Your task to perform on an android device: add a contact Image 0: 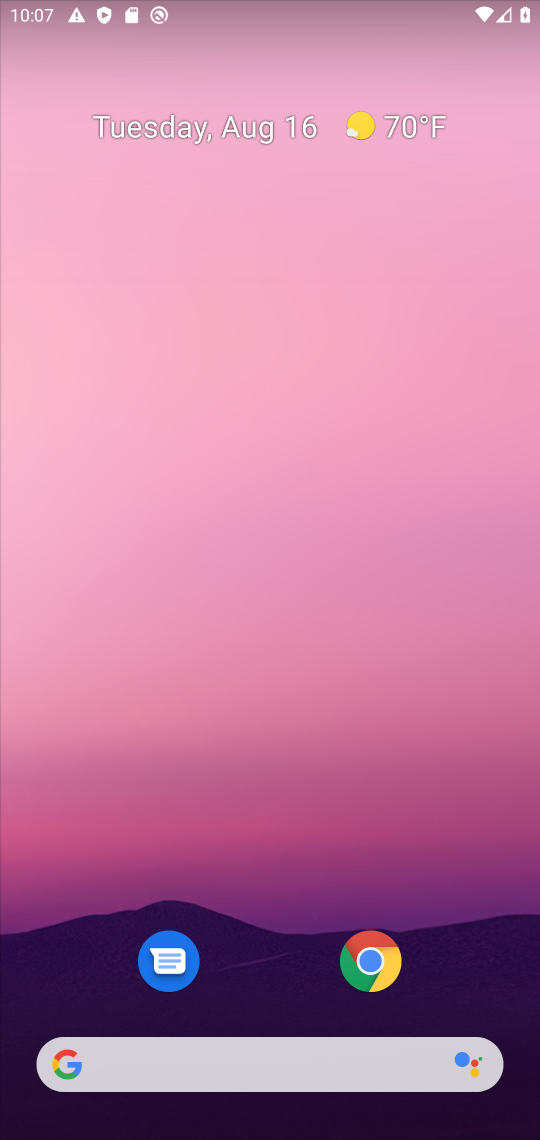
Step 0: press home button
Your task to perform on an android device: add a contact Image 1: 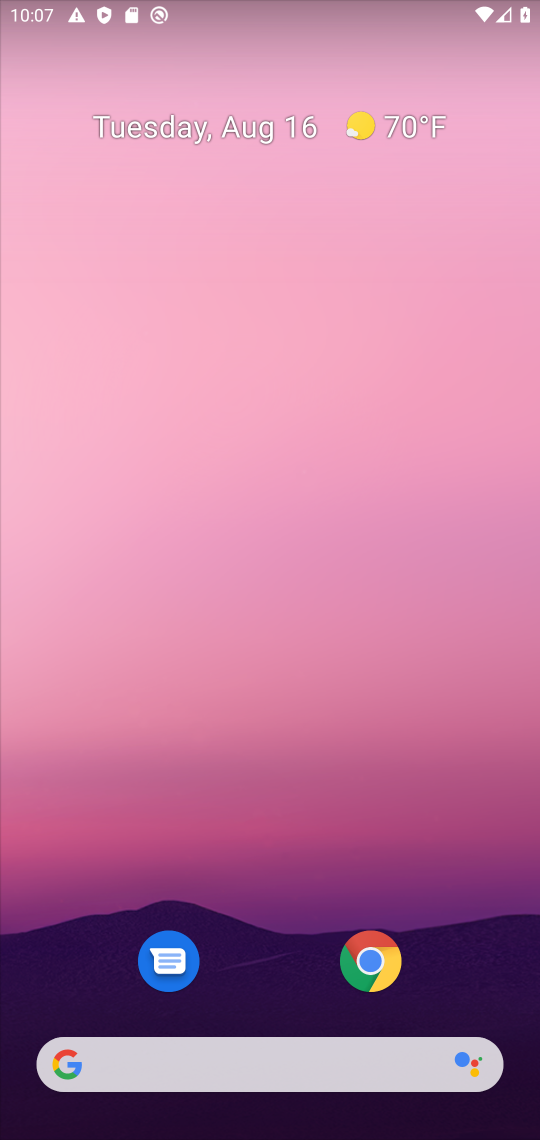
Step 1: drag from (341, 476) to (325, 3)
Your task to perform on an android device: add a contact Image 2: 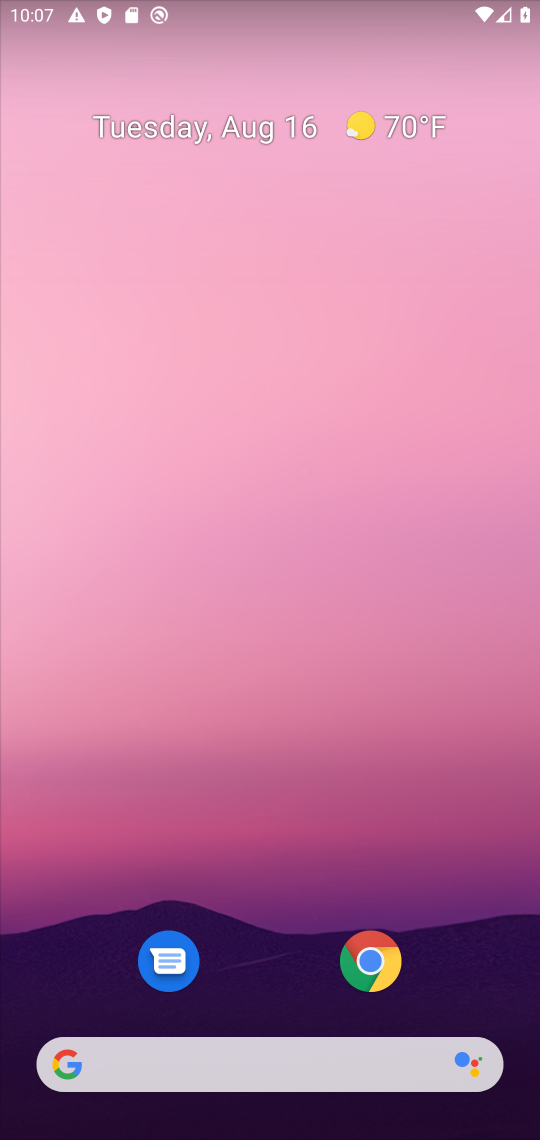
Step 2: drag from (263, 870) to (243, 500)
Your task to perform on an android device: add a contact Image 3: 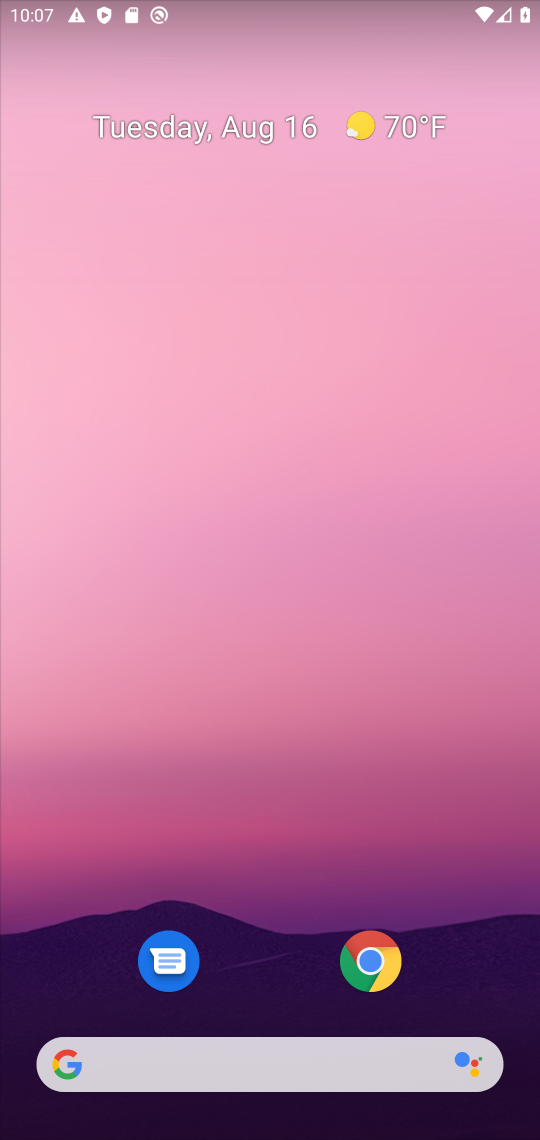
Step 3: drag from (293, 813) to (334, 167)
Your task to perform on an android device: add a contact Image 4: 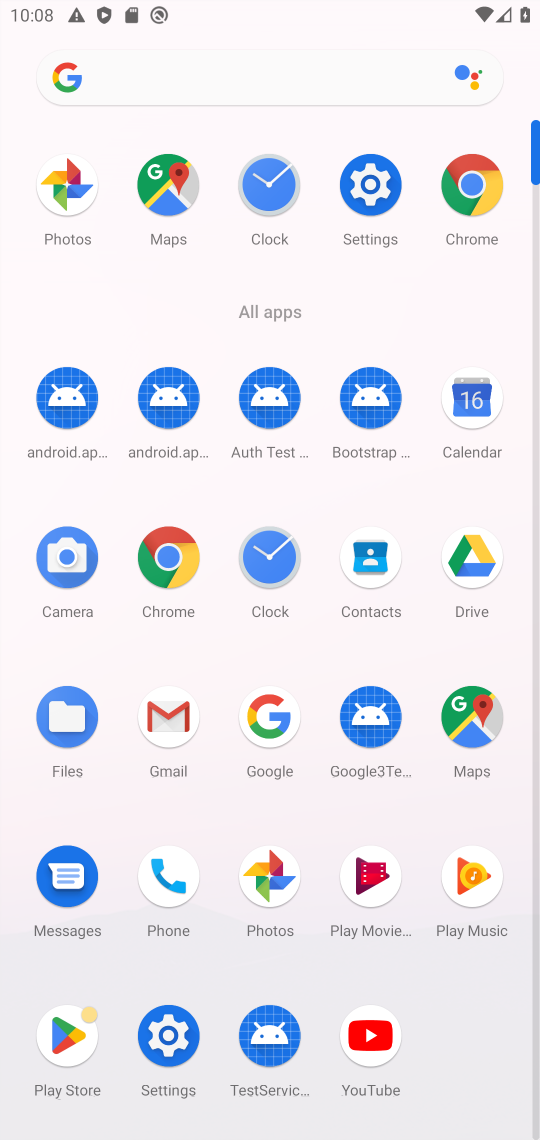
Step 4: click (369, 555)
Your task to perform on an android device: add a contact Image 5: 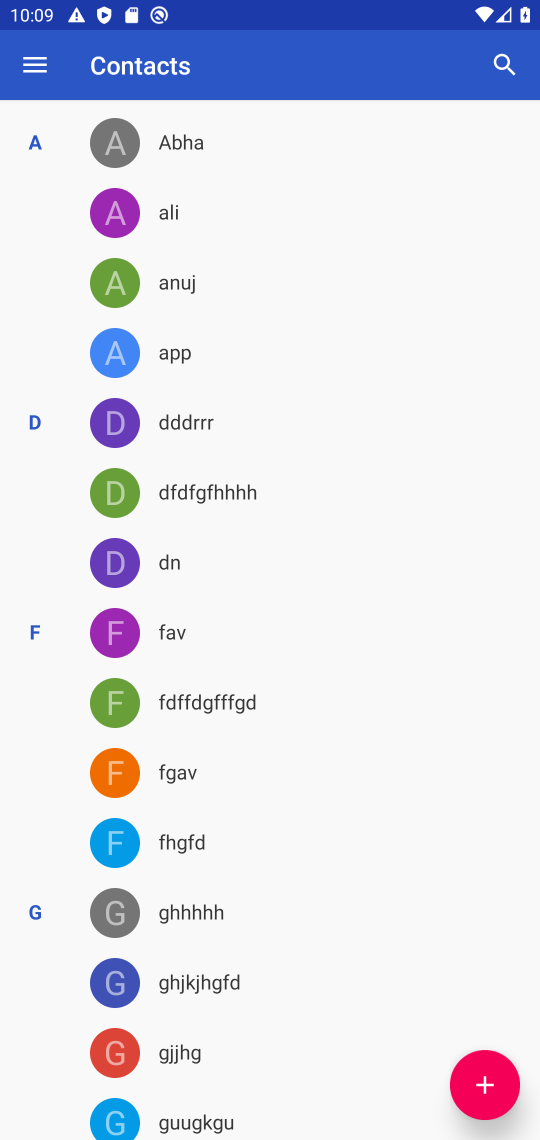
Step 5: task complete